Your task to perform on an android device: Is it going to rain this weekend? Image 0: 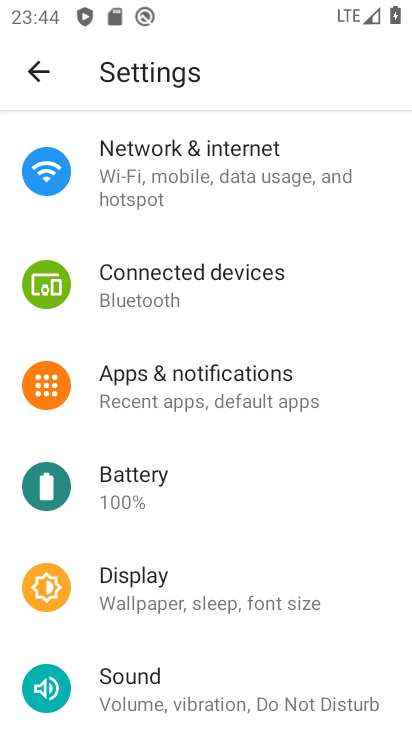
Step 0: press home button
Your task to perform on an android device: Is it going to rain this weekend? Image 1: 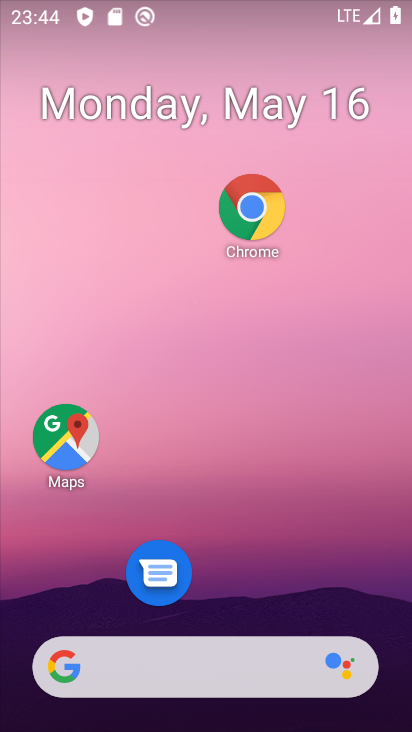
Step 1: drag from (245, 675) to (270, 71)
Your task to perform on an android device: Is it going to rain this weekend? Image 2: 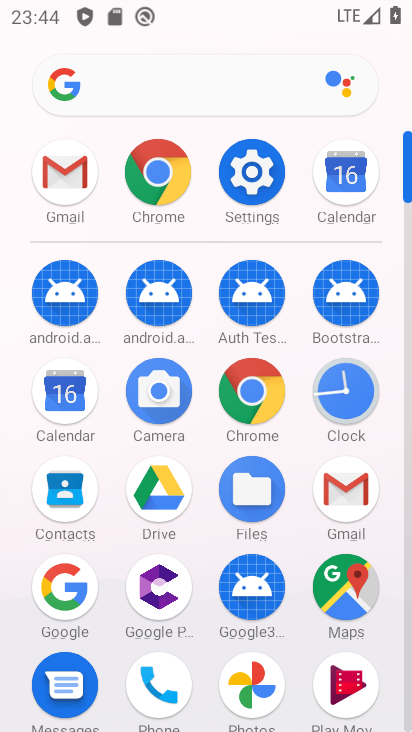
Step 2: click (262, 406)
Your task to perform on an android device: Is it going to rain this weekend? Image 3: 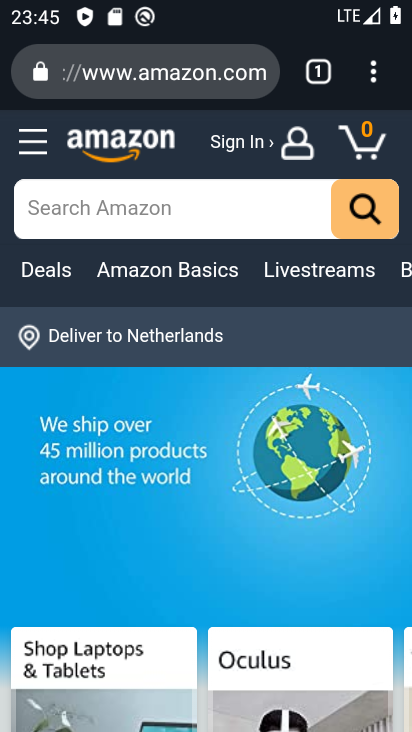
Step 3: press home button
Your task to perform on an android device: Is it going to rain this weekend? Image 4: 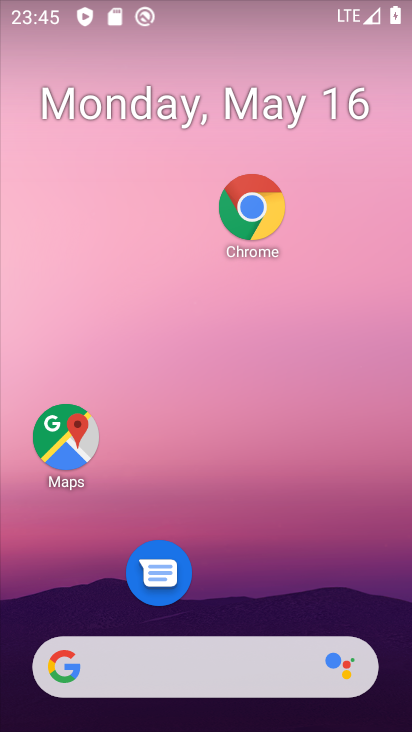
Step 4: drag from (37, 309) to (410, 373)
Your task to perform on an android device: Is it going to rain this weekend? Image 5: 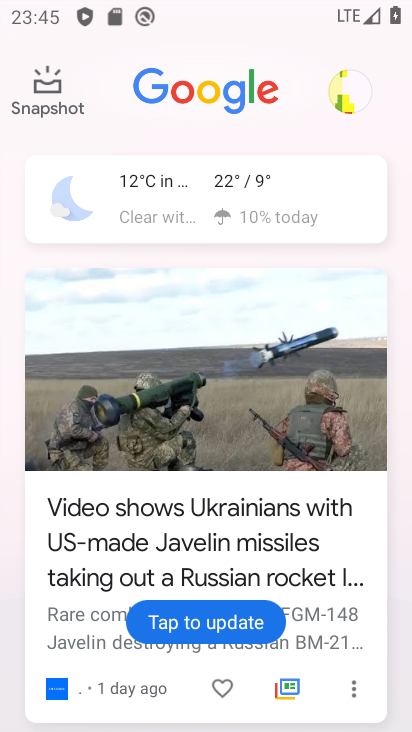
Step 5: click (273, 205)
Your task to perform on an android device: Is it going to rain this weekend? Image 6: 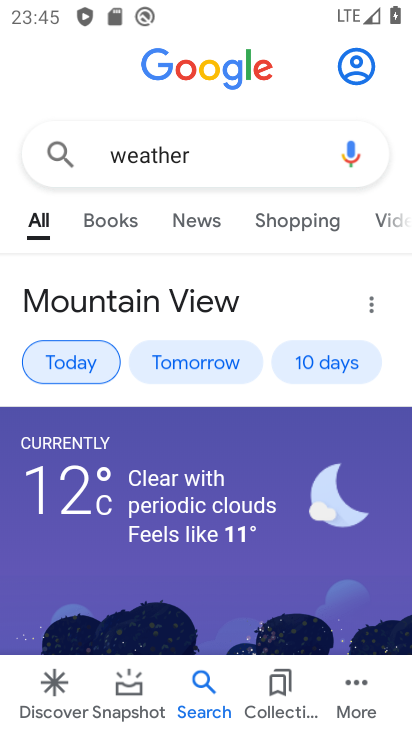
Step 6: task complete